Your task to perform on an android device: open a new tab in the chrome app Image 0: 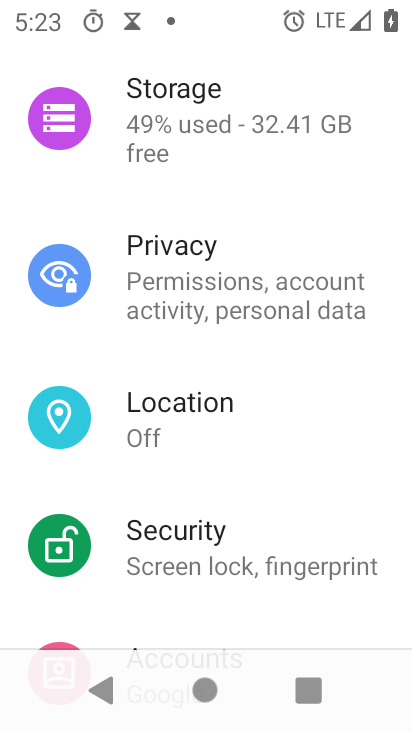
Step 0: drag from (241, 620) to (312, 56)
Your task to perform on an android device: open a new tab in the chrome app Image 1: 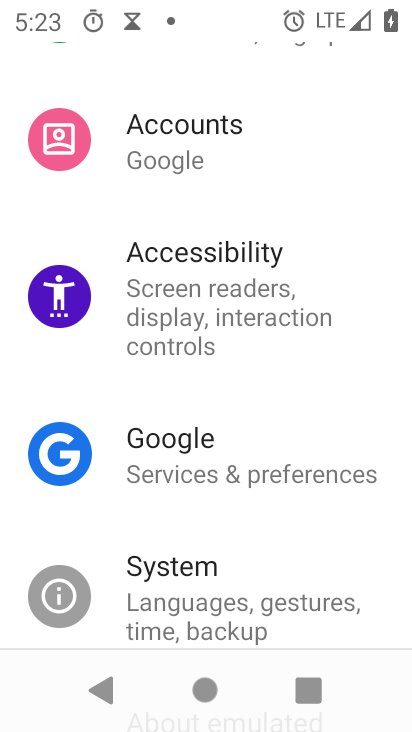
Step 1: press home button
Your task to perform on an android device: open a new tab in the chrome app Image 2: 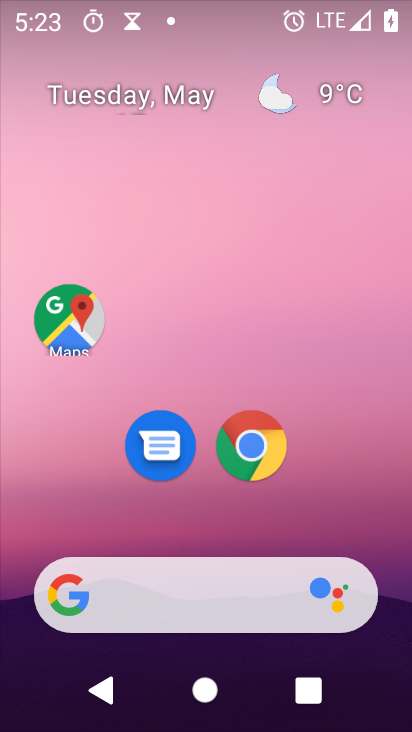
Step 2: drag from (267, 536) to (283, 22)
Your task to perform on an android device: open a new tab in the chrome app Image 3: 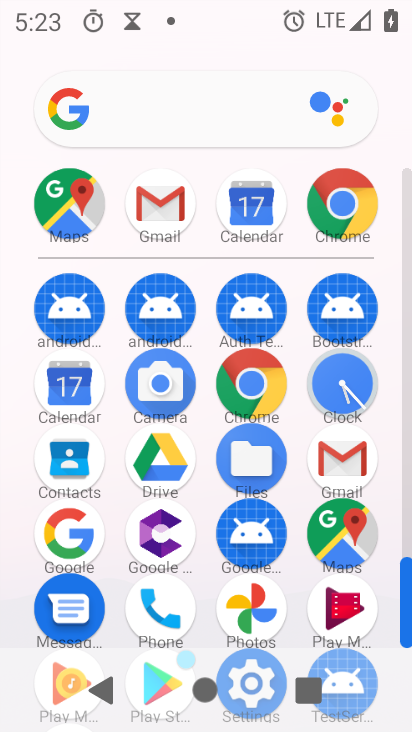
Step 3: click (249, 384)
Your task to perform on an android device: open a new tab in the chrome app Image 4: 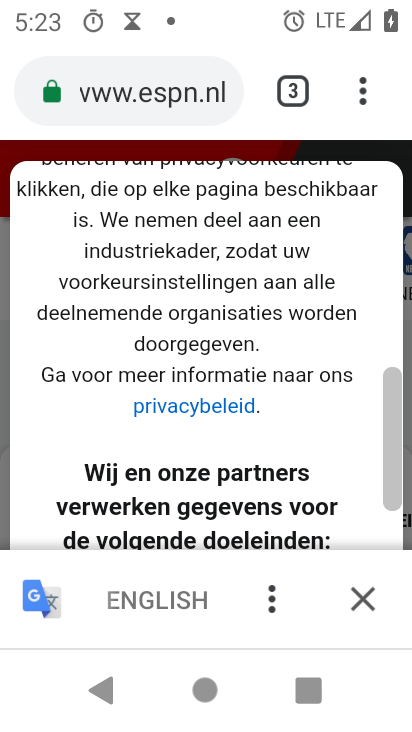
Step 4: task complete